Your task to perform on an android device: Go to battery settings Image 0: 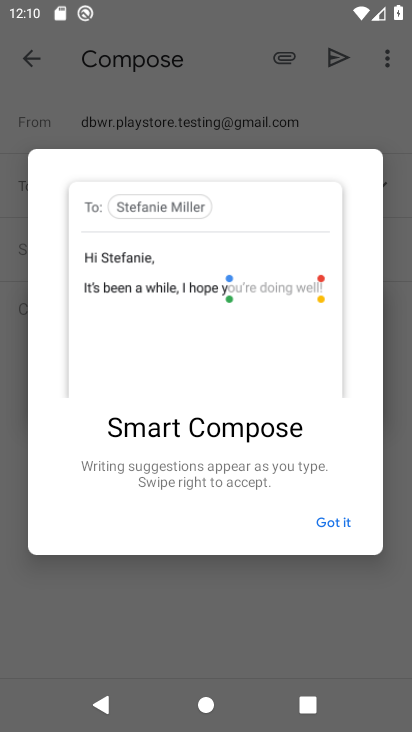
Step 0: press home button
Your task to perform on an android device: Go to battery settings Image 1: 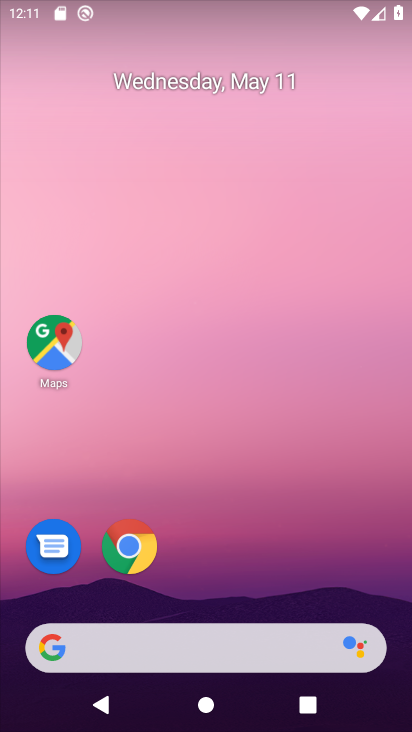
Step 1: drag from (275, 581) to (296, 276)
Your task to perform on an android device: Go to battery settings Image 2: 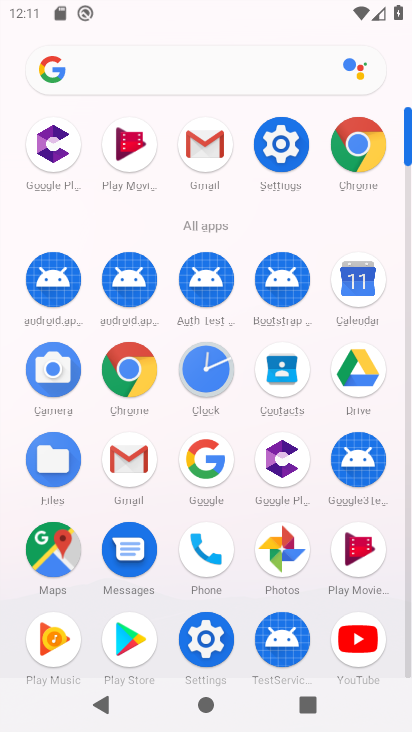
Step 2: click (286, 142)
Your task to perform on an android device: Go to battery settings Image 3: 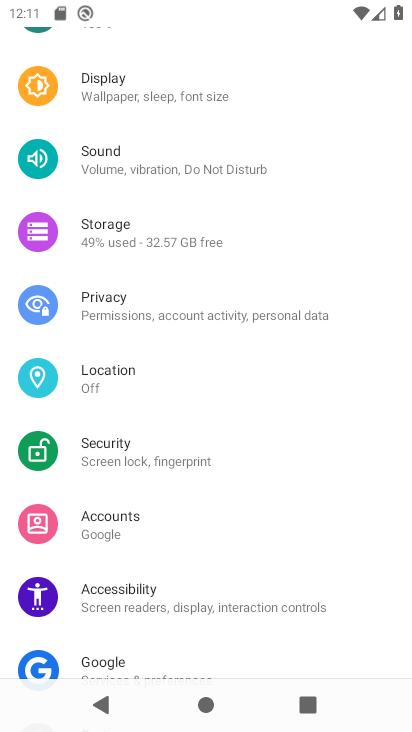
Step 3: drag from (162, 167) to (166, 417)
Your task to perform on an android device: Go to battery settings Image 4: 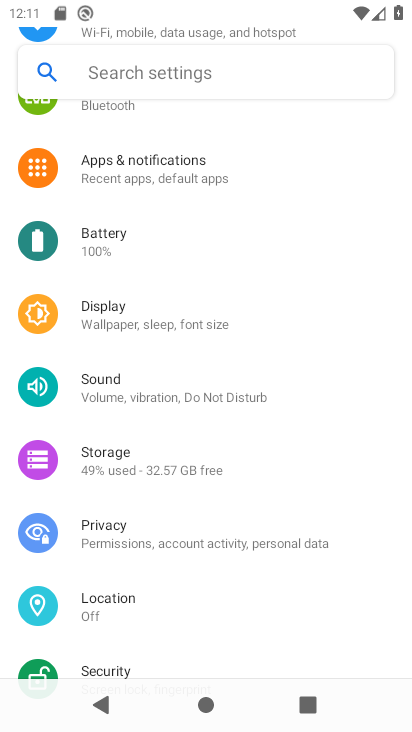
Step 4: click (143, 239)
Your task to perform on an android device: Go to battery settings Image 5: 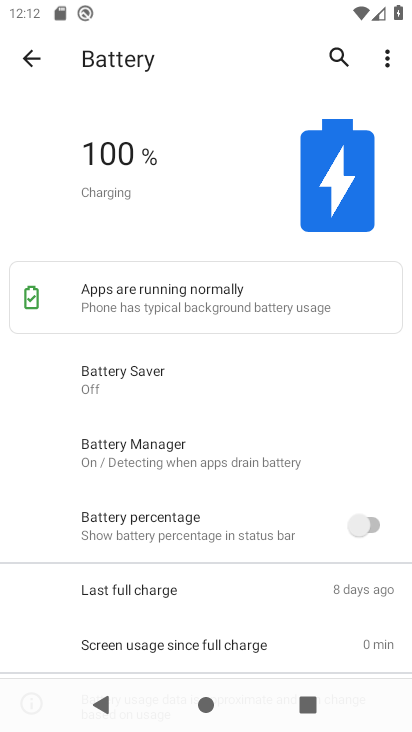
Step 5: task complete